Your task to perform on an android device: Open Google Chrome Image 0: 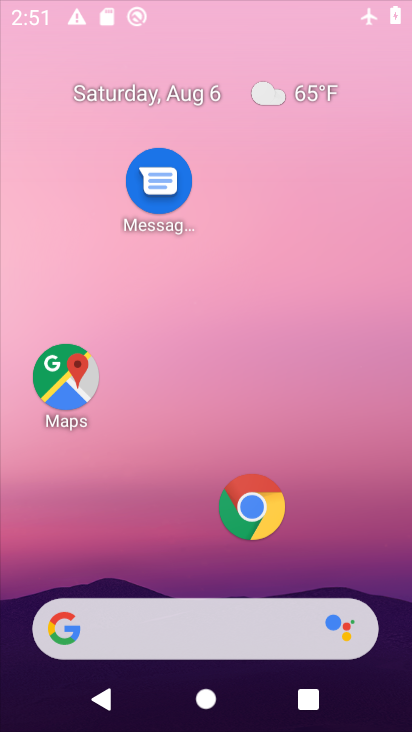
Step 0: click (215, 450)
Your task to perform on an android device: Open Google Chrome Image 1: 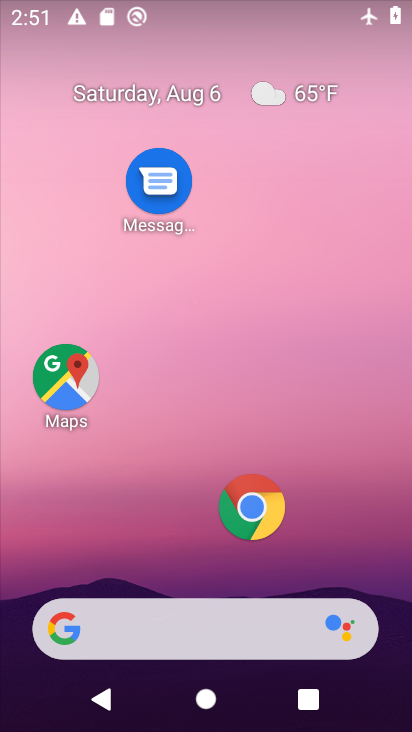
Step 1: click (260, 512)
Your task to perform on an android device: Open Google Chrome Image 2: 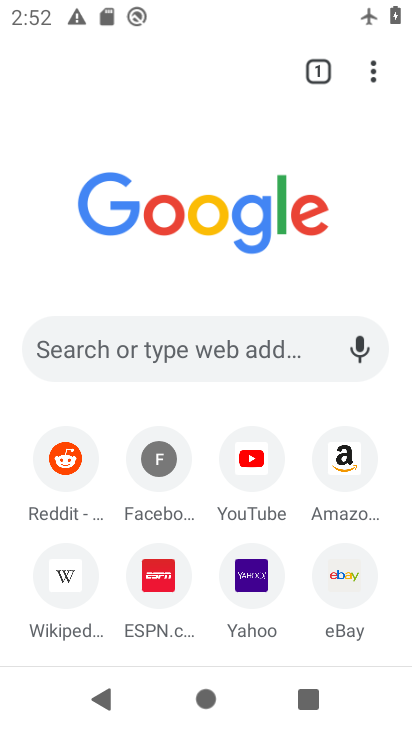
Step 2: task complete